Your task to perform on an android device: toggle airplane mode Image 0: 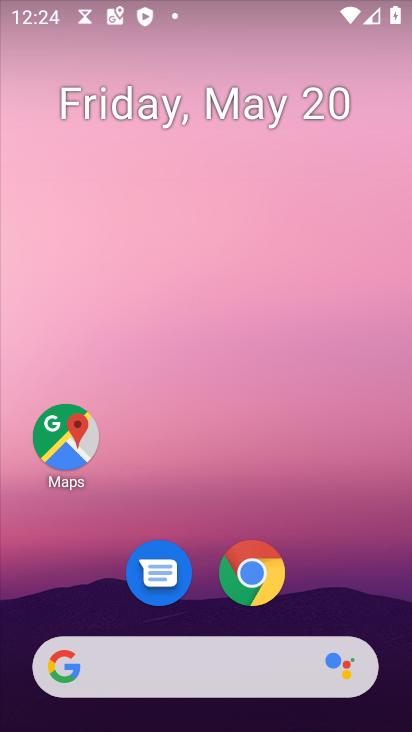
Step 0: drag from (324, 597) to (292, 45)
Your task to perform on an android device: toggle airplane mode Image 1: 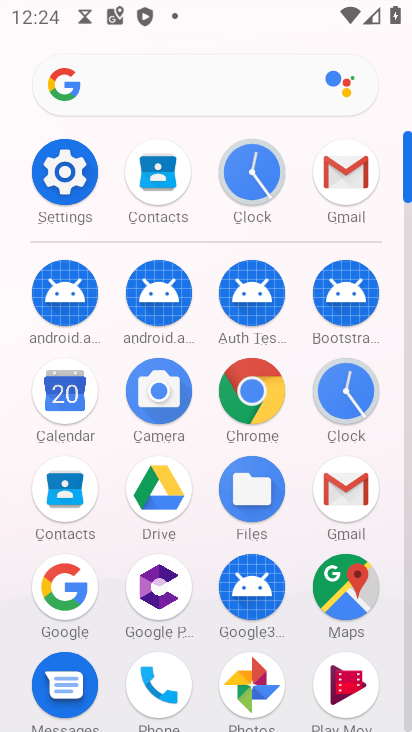
Step 1: click (60, 172)
Your task to perform on an android device: toggle airplane mode Image 2: 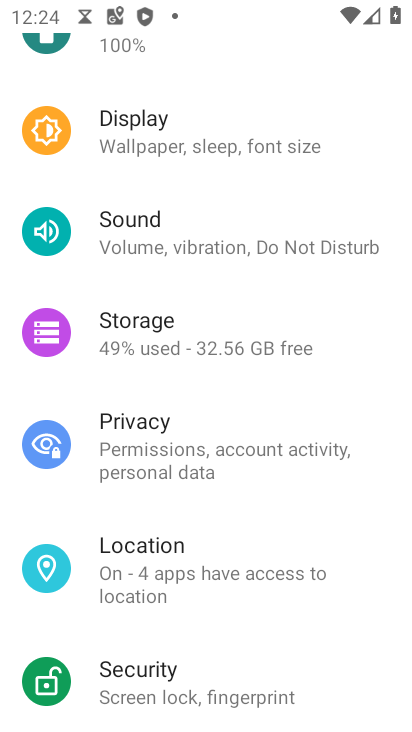
Step 2: drag from (217, 200) to (187, 622)
Your task to perform on an android device: toggle airplane mode Image 3: 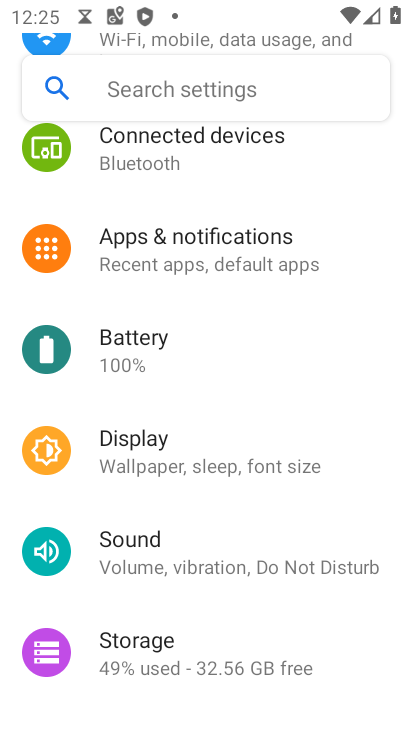
Step 3: drag from (108, 304) to (129, 658)
Your task to perform on an android device: toggle airplane mode Image 4: 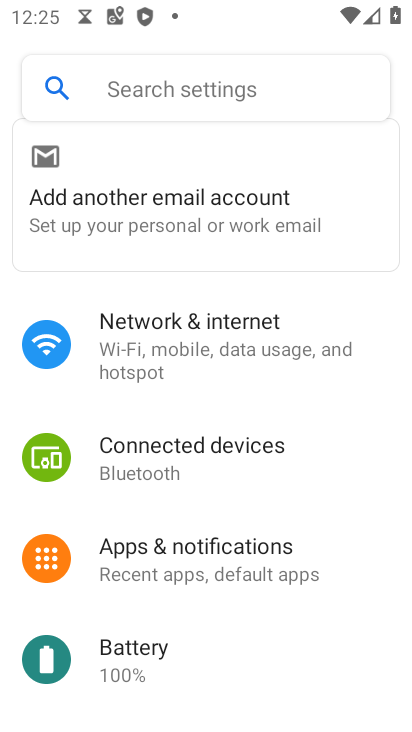
Step 4: click (155, 308)
Your task to perform on an android device: toggle airplane mode Image 5: 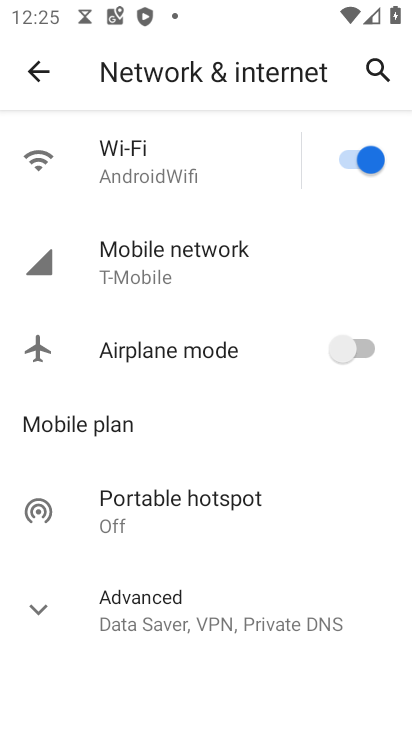
Step 5: click (335, 352)
Your task to perform on an android device: toggle airplane mode Image 6: 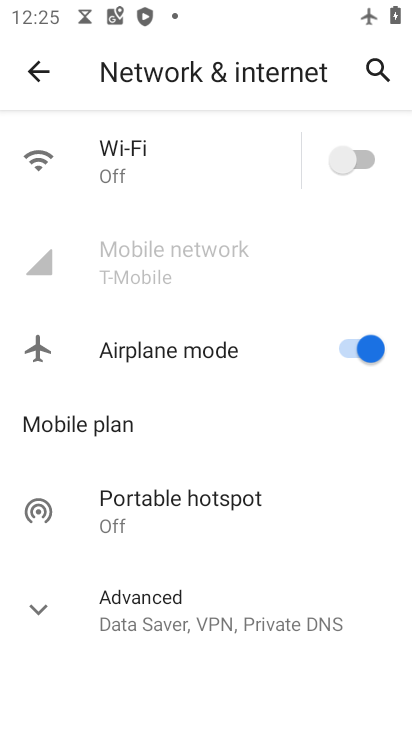
Step 6: task complete